Your task to perform on an android device: turn notification dots on Image 0: 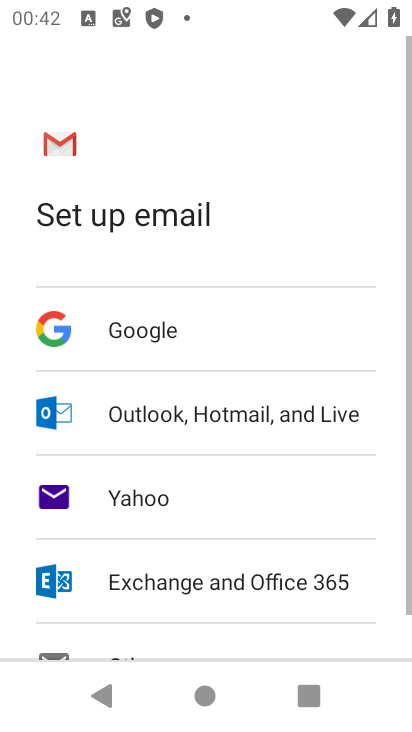
Step 0: press home button
Your task to perform on an android device: turn notification dots on Image 1: 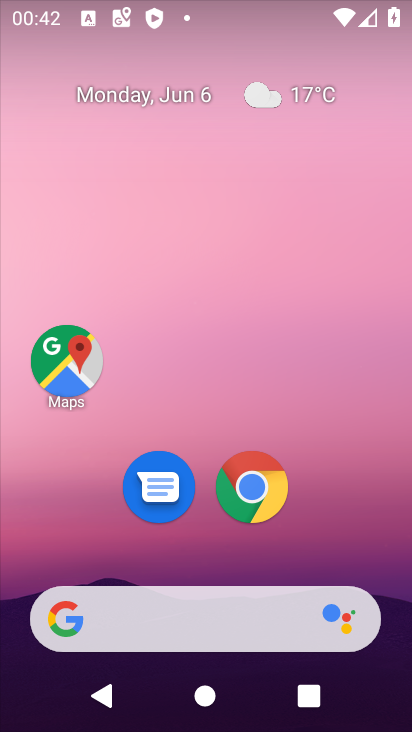
Step 1: drag from (396, 612) to (296, 37)
Your task to perform on an android device: turn notification dots on Image 2: 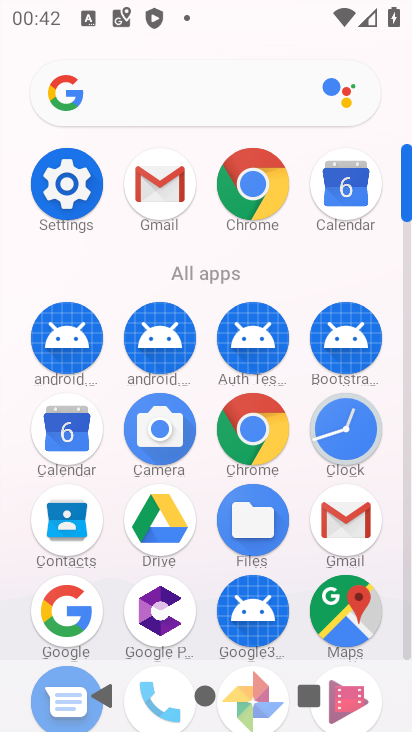
Step 2: click (409, 640)
Your task to perform on an android device: turn notification dots on Image 3: 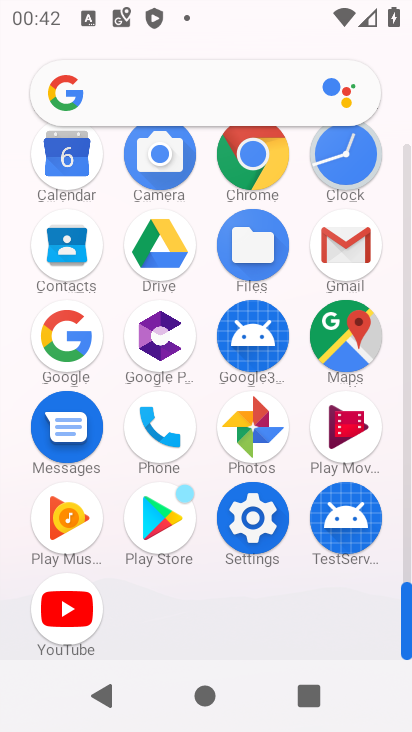
Step 3: click (254, 518)
Your task to perform on an android device: turn notification dots on Image 4: 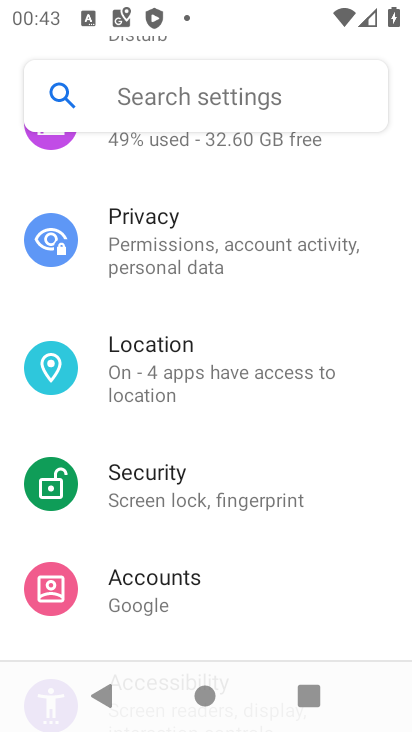
Step 4: click (365, 552)
Your task to perform on an android device: turn notification dots on Image 5: 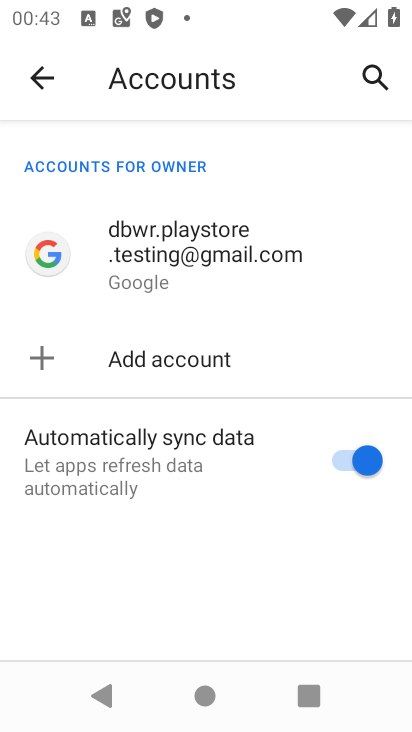
Step 5: drag from (360, 229) to (357, 394)
Your task to perform on an android device: turn notification dots on Image 6: 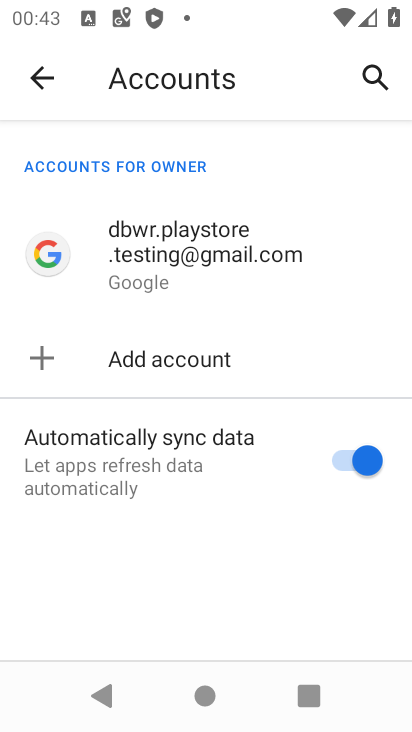
Step 6: press back button
Your task to perform on an android device: turn notification dots on Image 7: 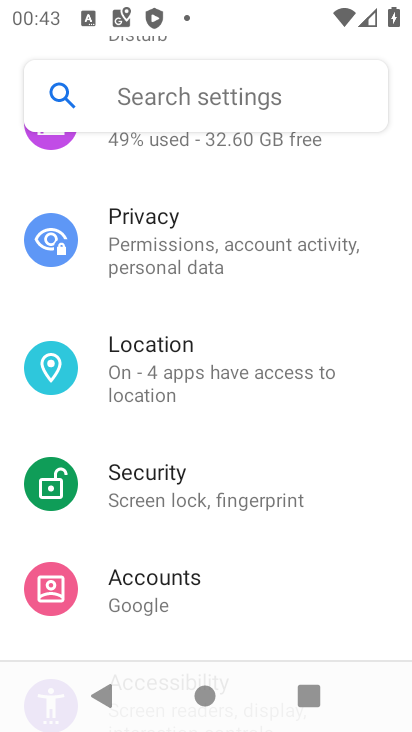
Step 7: drag from (386, 218) to (362, 593)
Your task to perform on an android device: turn notification dots on Image 8: 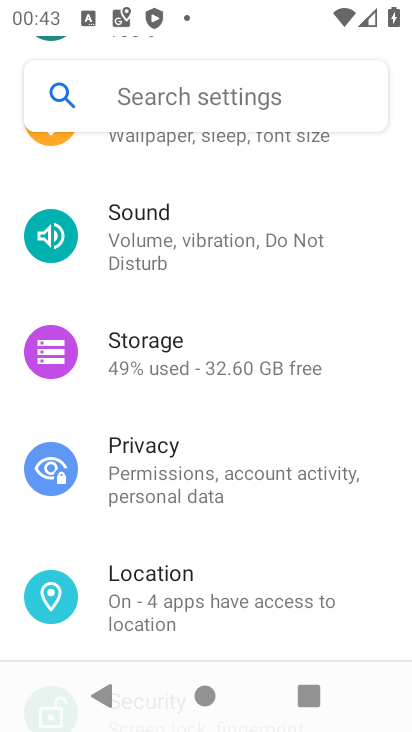
Step 8: drag from (359, 207) to (359, 520)
Your task to perform on an android device: turn notification dots on Image 9: 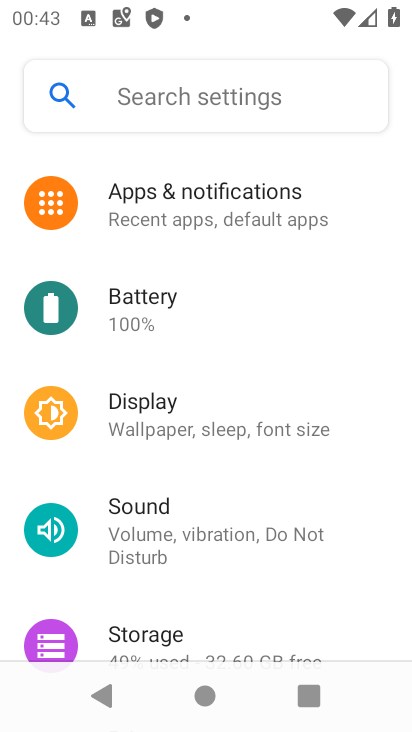
Step 9: click (214, 209)
Your task to perform on an android device: turn notification dots on Image 10: 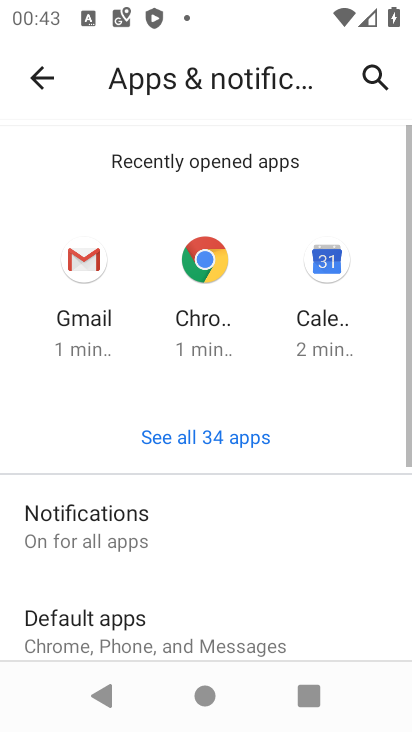
Step 10: click (68, 511)
Your task to perform on an android device: turn notification dots on Image 11: 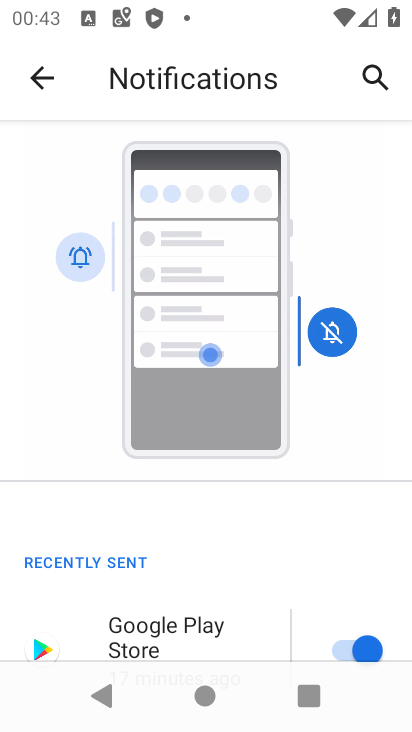
Step 11: drag from (295, 630) to (237, 138)
Your task to perform on an android device: turn notification dots on Image 12: 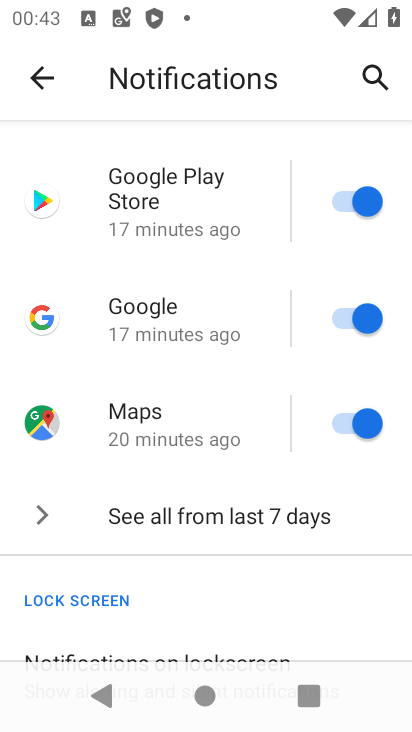
Step 12: drag from (291, 649) to (231, 146)
Your task to perform on an android device: turn notification dots on Image 13: 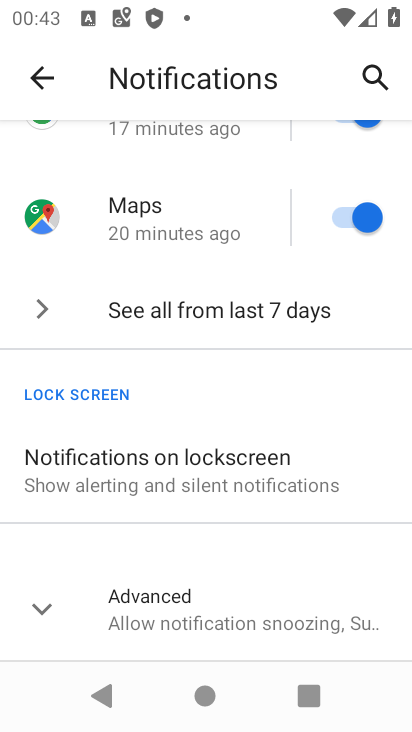
Step 13: click (43, 605)
Your task to perform on an android device: turn notification dots on Image 14: 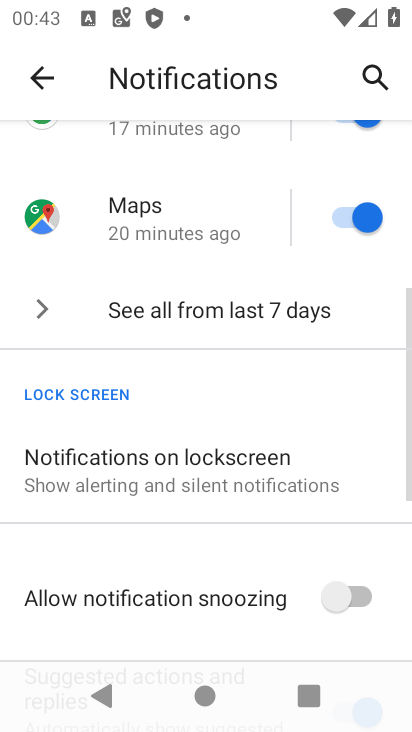
Step 14: task complete